Your task to perform on an android device: toggle notifications settings in the gmail app Image 0: 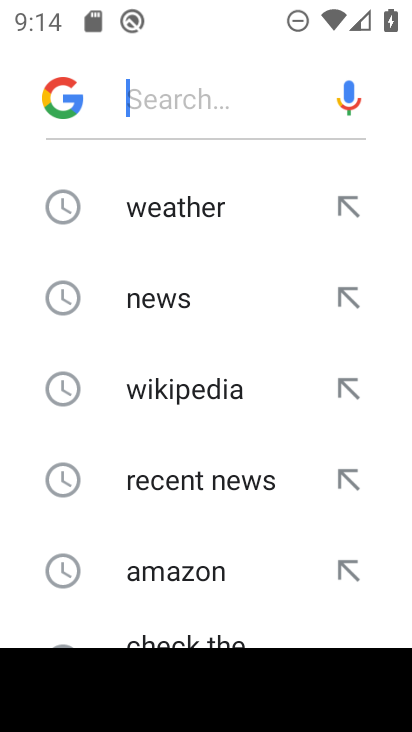
Step 0: press home button
Your task to perform on an android device: toggle notifications settings in the gmail app Image 1: 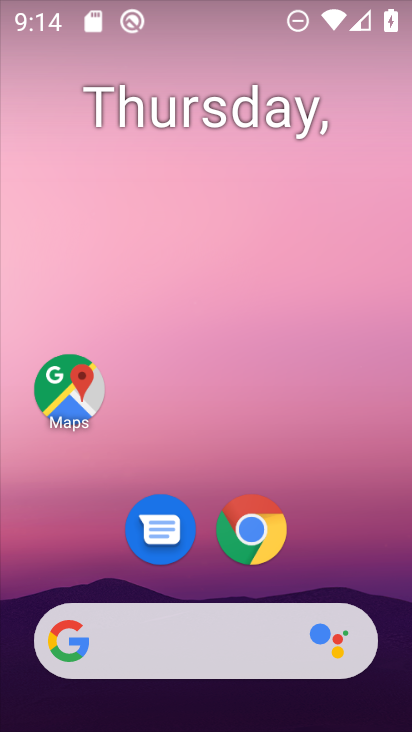
Step 1: drag from (230, 726) to (225, 591)
Your task to perform on an android device: toggle notifications settings in the gmail app Image 2: 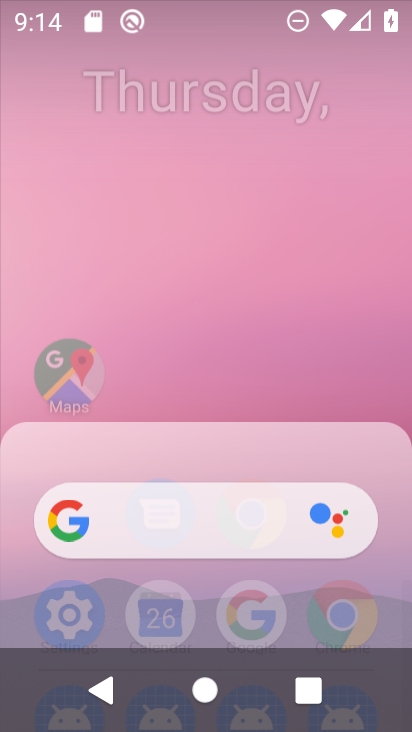
Step 2: drag from (219, 106) to (219, 37)
Your task to perform on an android device: toggle notifications settings in the gmail app Image 3: 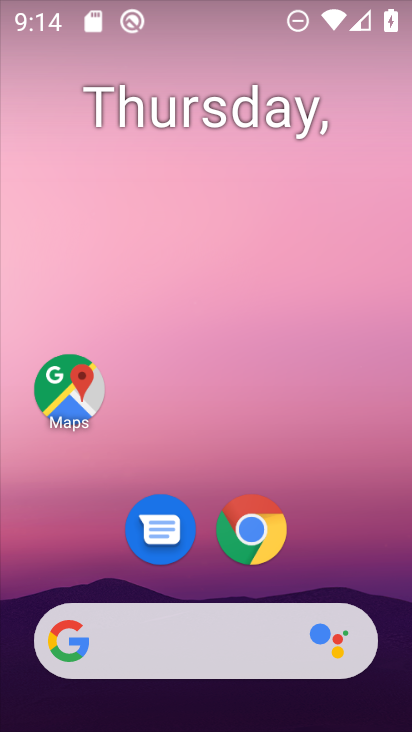
Step 3: drag from (237, 730) to (238, 575)
Your task to perform on an android device: toggle notifications settings in the gmail app Image 4: 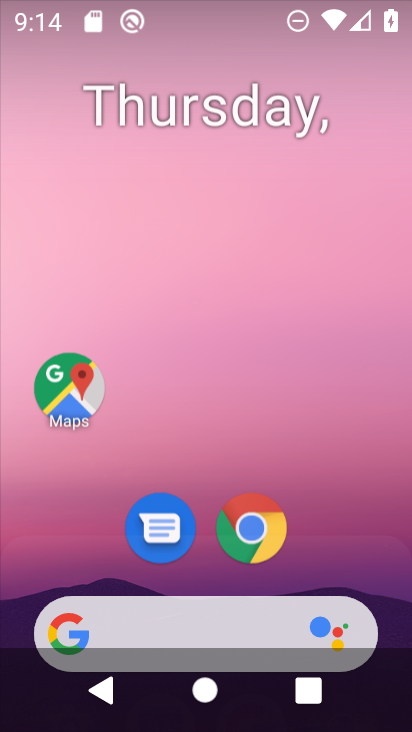
Step 4: drag from (238, 48) to (232, 0)
Your task to perform on an android device: toggle notifications settings in the gmail app Image 5: 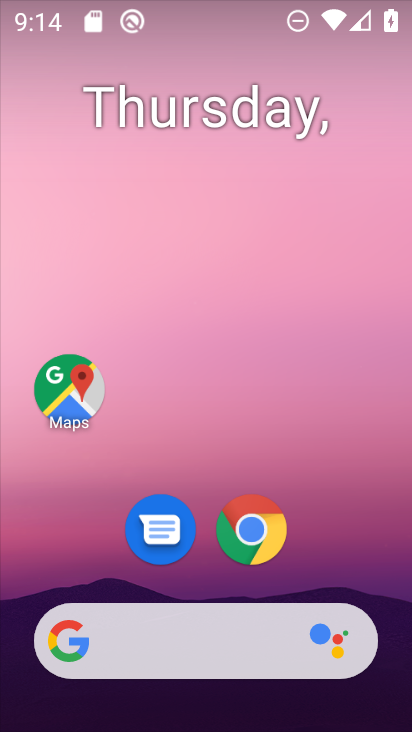
Step 5: drag from (214, 722) to (217, 382)
Your task to perform on an android device: toggle notifications settings in the gmail app Image 6: 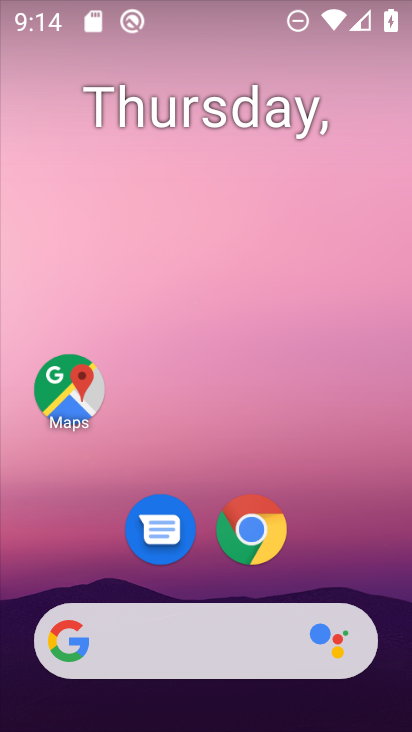
Step 6: drag from (218, 55) to (213, 11)
Your task to perform on an android device: toggle notifications settings in the gmail app Image 7: 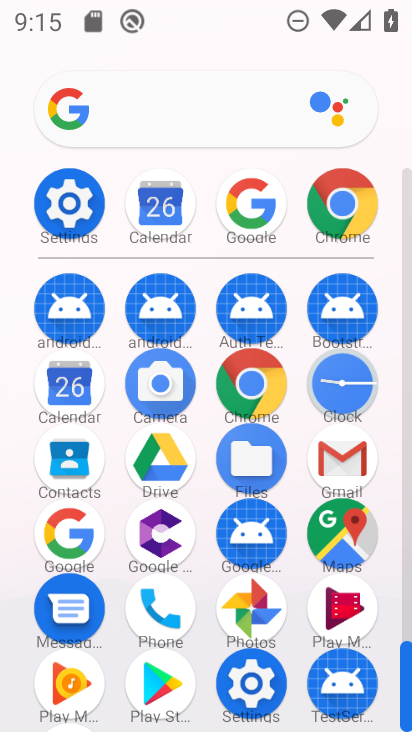
Step 7: click (345, 455)
Your task to perform on an android device: toggle notifications settings in the gmail app Image 8: 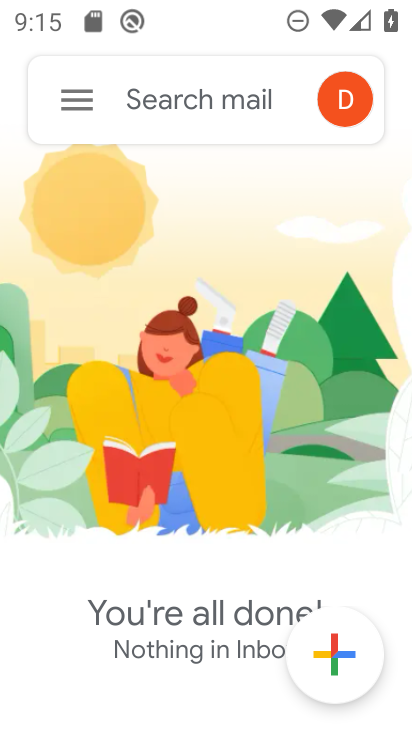
Step 8: click (80, 104)
Your task to perform on an android device: toggle notifications settings in the gmail app Image 9: 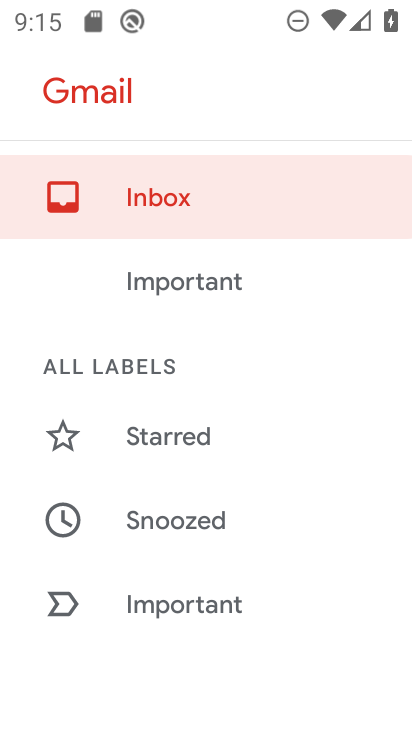
Step 9: drag from (164, 655) to (189, 197)
Your task to perform on an android device: toggle notifications settings in the gmail app Image 10: 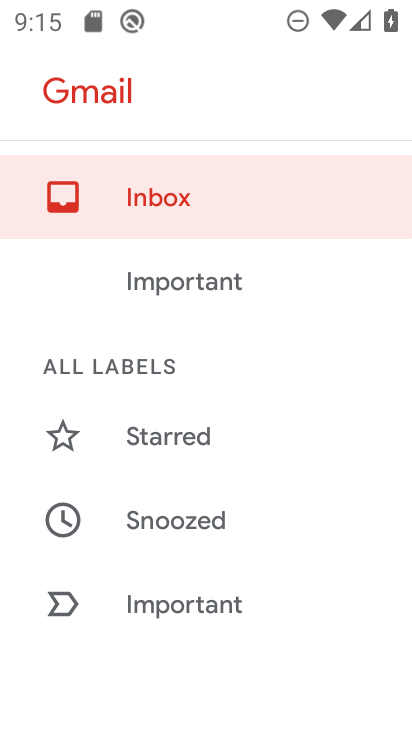
Step 10: drag from (286, 604) to (263, 104)
Your task to perform on an android device: toggle notifications settings in the gmail app Image 11: 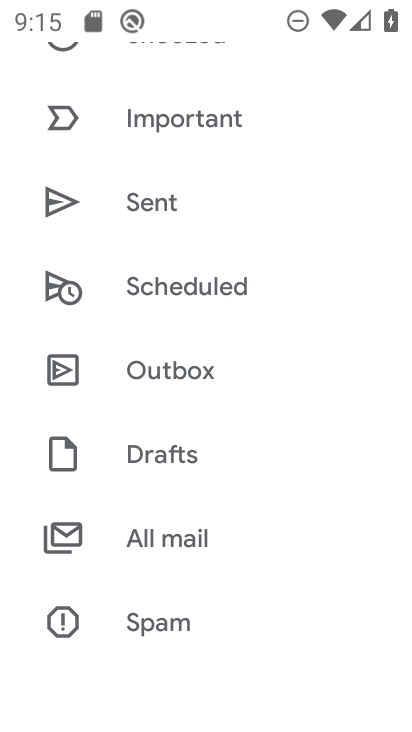
Step 11: drag from (278, 629) to (280, 91)
Your task to perform on an android device: toggle notifications settings in the gmail app Image 12: 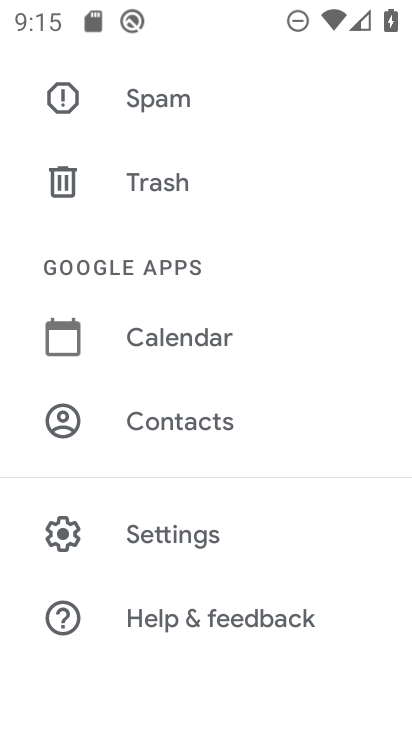
Step 12: click (148, 541)
Your task to perform on an android device: toggle notifications settings in the gmail app Image 13: 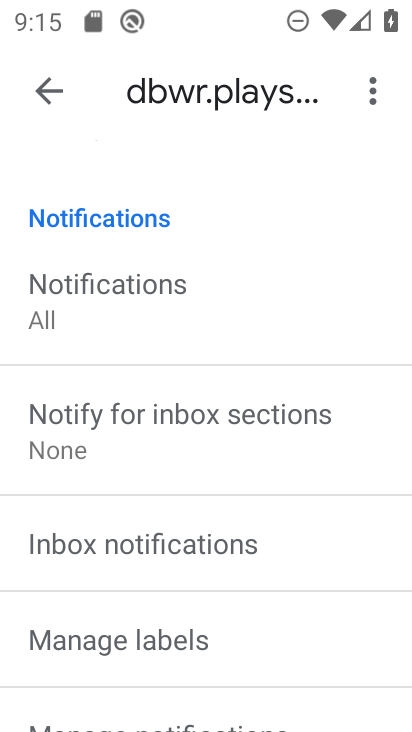
Step 13: click (60, 286)
Your task to perform on an android device: toggle notifications settings in the gmail app Image 14: 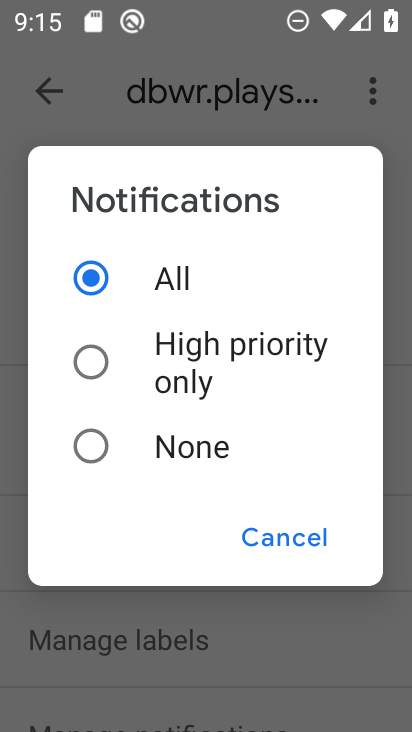
Step 14: click (89, 445)
Your task to perform on an android device: toggle notifications settings in the gmail app Image 15: 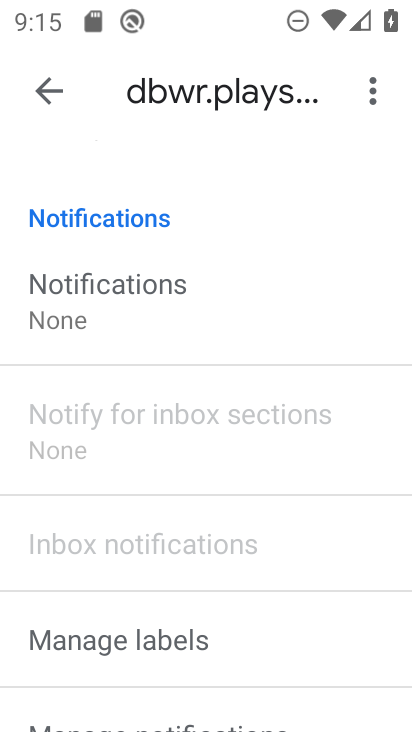
Step 15: task complete